Your task to perform on an android device: Open settings Image 0: 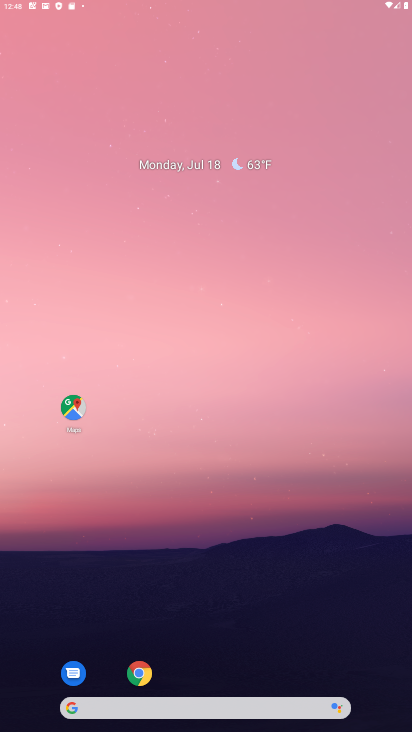
Step 0: drag from (219, 642) to (264, 279)
Your task to perform on an android device: Open settings Image 1: 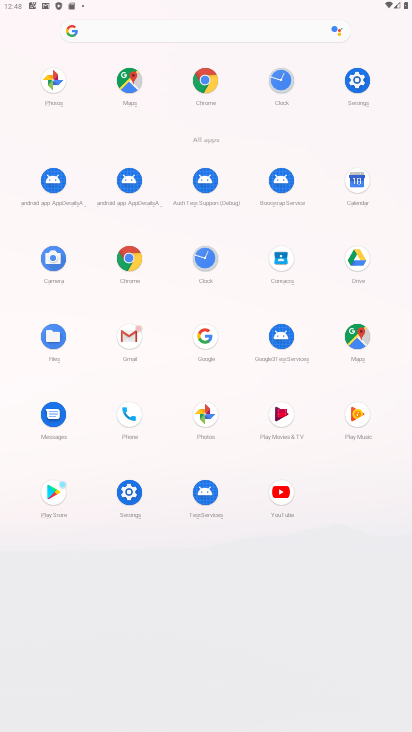
Step 1: click (357, 76)
Your task to perform on an android device: Open settings Image 2: 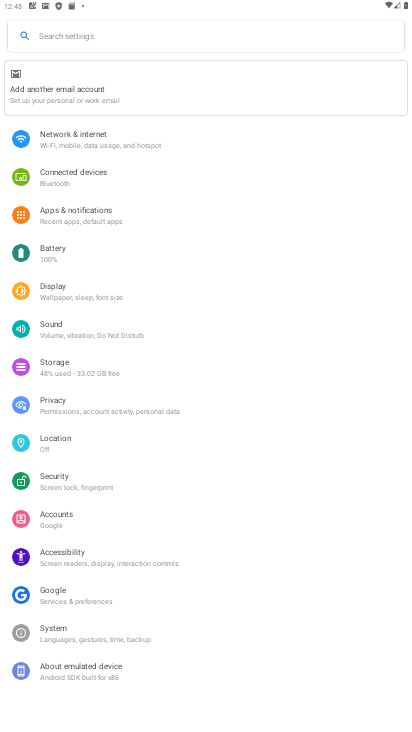
Step 2: task complete